Your task to perform on an android device: check the backup settings in the google photos Image 0: 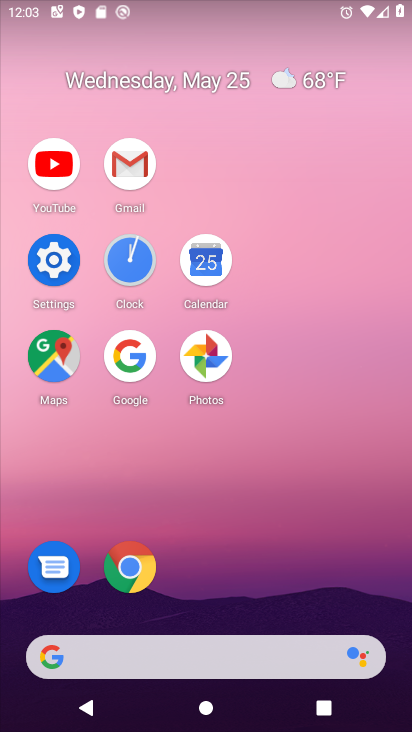
Step 0: click (212, 363)
Your task to perform on an android device: check the backup settings in the google photos Image 1: 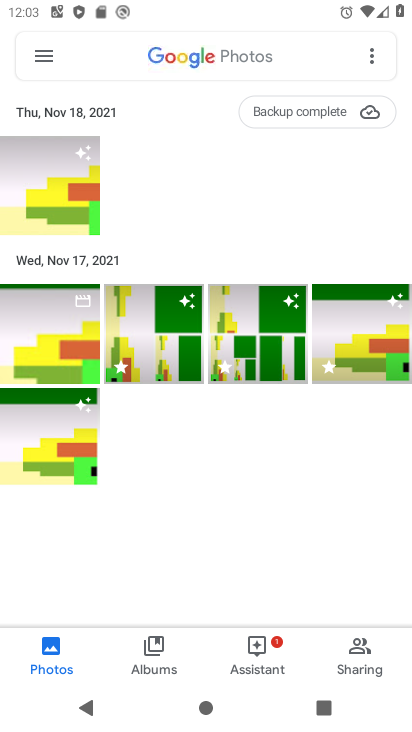
Step 1: click (49, 69)
Your task to perform on an android device: check the backup settings in the google photos Image 2: 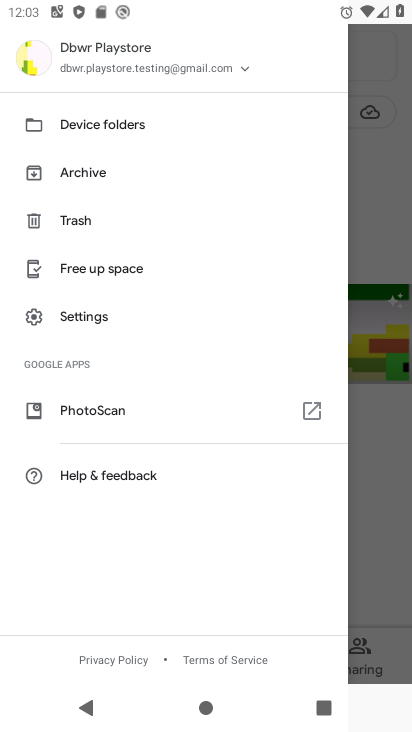
Step 2: click (116, 315)
Your task to perform on an android device: check the backup settings in the google photos Image 3: 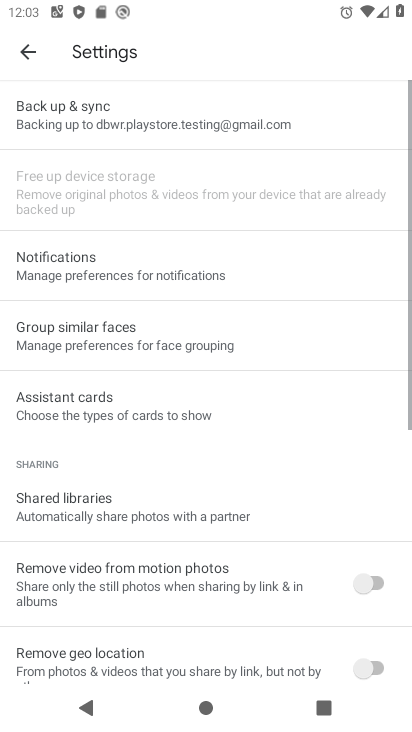
Step 3: click (124, 106)
Your task to perform on an android device: check the backup settings in the google photos Image 4: 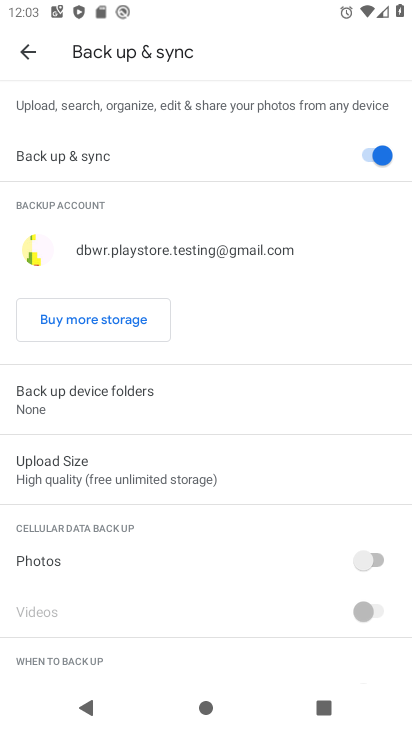
Step 4: task complete